Your task to perform on an android device: toggle notifications settings in the gmail app Image 0: 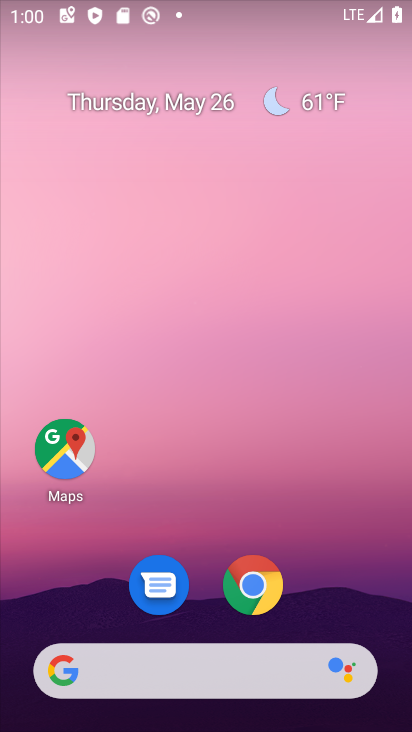
Step 0: drag from (211, 518) to (233, 0)
Your task to perform on an android device: toggle notifications settings in the gmail app Image 1: 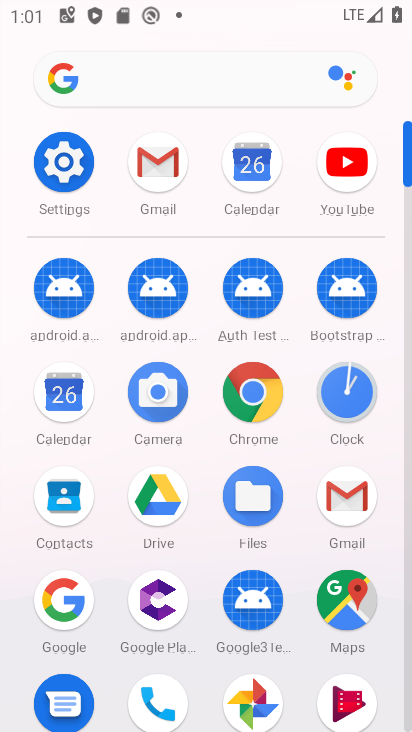
Step 1: click (162, 178)
Your task to perform on an android device: toggle notifications settings in the gmail app Image 2: 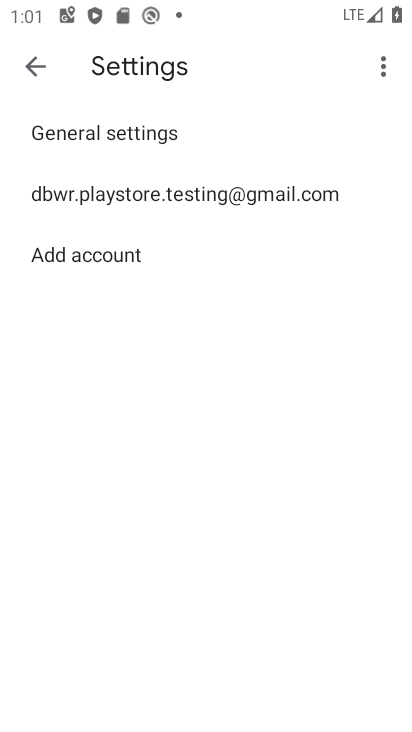
Step 2: click (162, 178)
Your task to perform on an android device: toggle notifications settings in the gmail app Image 3: 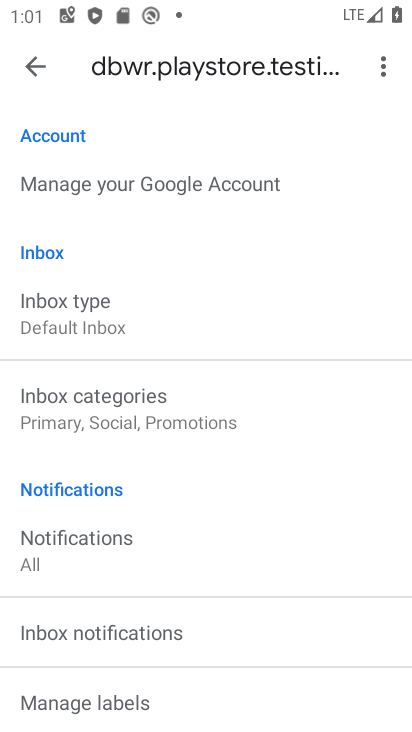
Step 3: drag from (220, 552) to (240, 211)
Your task to perform on an android device: toggle notifications settings in the gmail app Image 4: 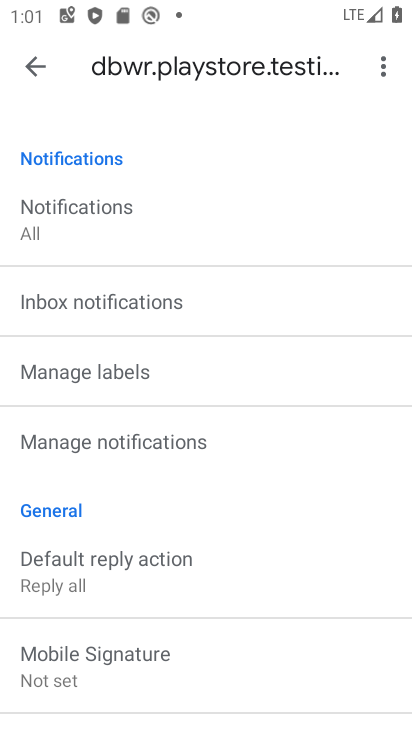
Step 4: click (196, 442)
Your task to perform on an android device: toggle notifications settings in the gmail app Image 5: 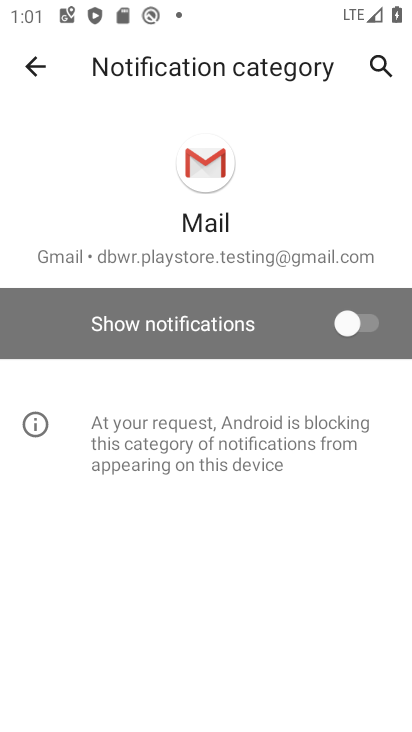
Step 5: click (358, 317)
Your task to perform on an android device: toggle notifications settings in the gmail app Image 6: 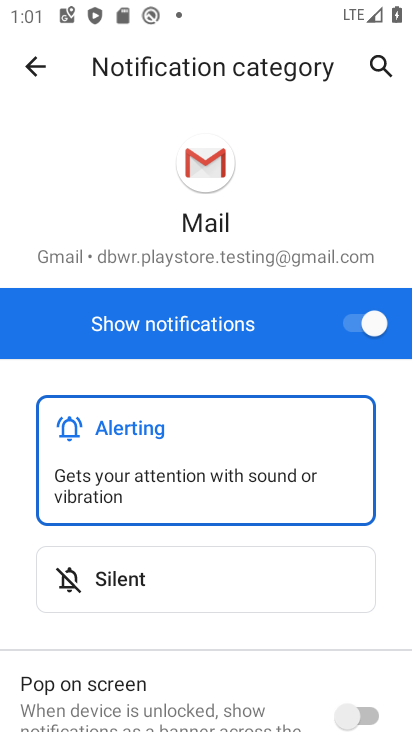
Step 6: task complete